Your task to perform on an android device: turn on improve location accuracy Image 0: 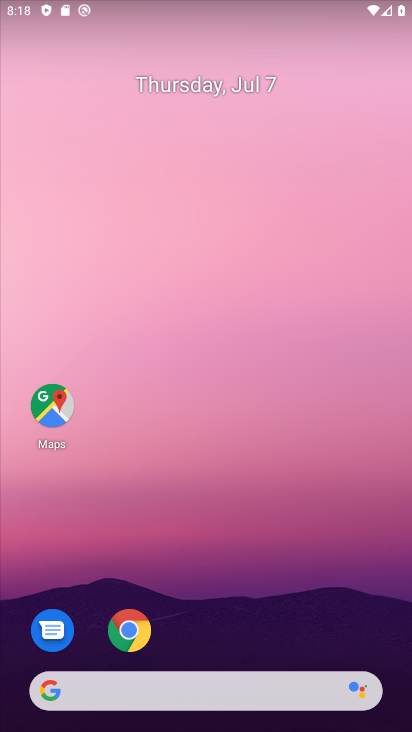
Step 0: drag from (230, 633) to (197, 200)
Your task to perform on an android device: turn on improve location accuracy Image 1: 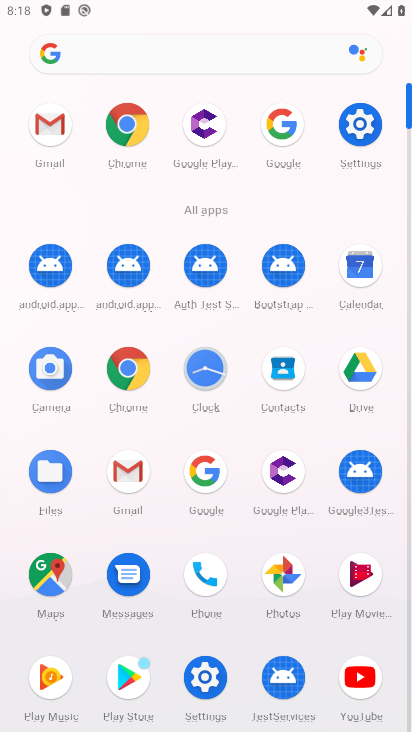
Step 1: click (348, 130)
Your task to perform on an android device: turn on improve location accuracy Image 2: 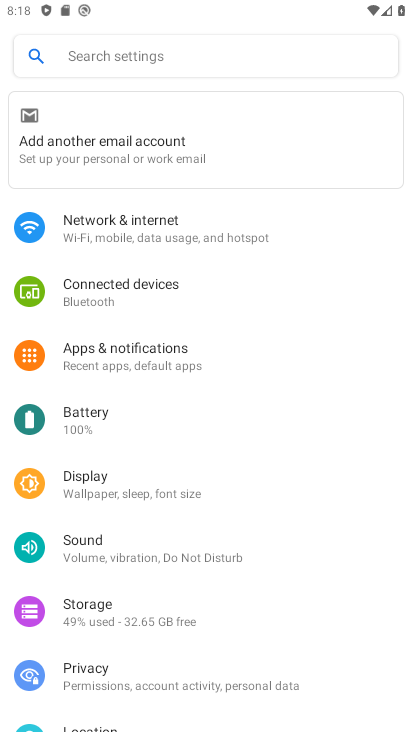
Step 2: drag from (171, 651) to (216, 367)
Your task to perform on an android device: turn on improve location accuracy Image 3: 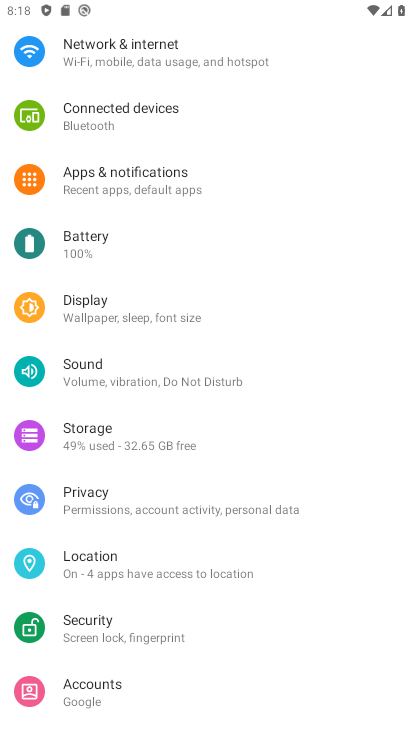
Step 3: click (136, 574)
Your task to perform on an android device: turn on improve location accuracy Image 4: 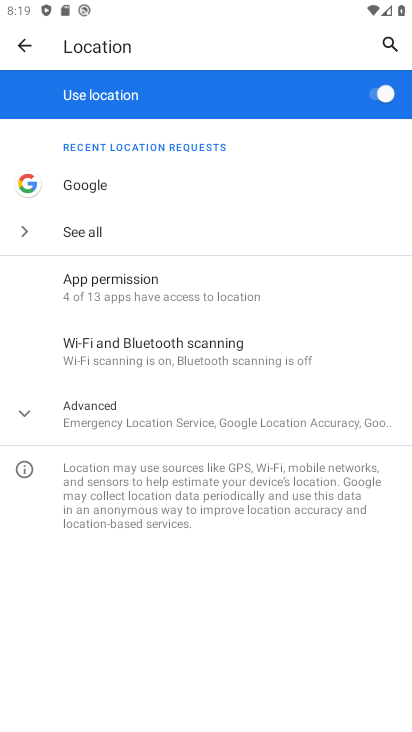
Step 4: click (172, 417)
Your task to perform on an android device: turn on improve location accuracy Image 5: 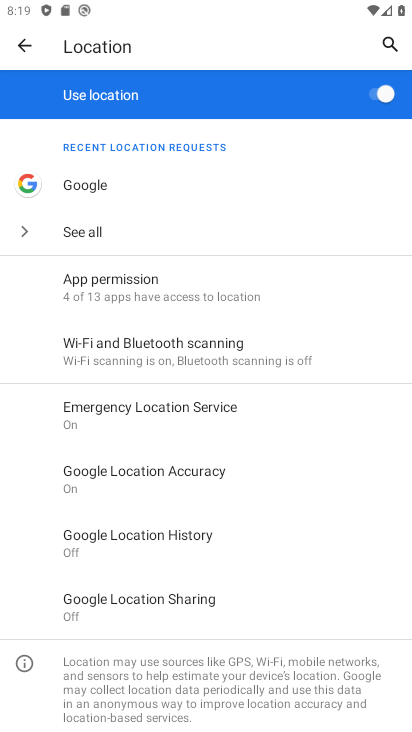
Step 5: click (217, 483)
Your task to perform on an android device: turn on improve location accuracy Image 6: 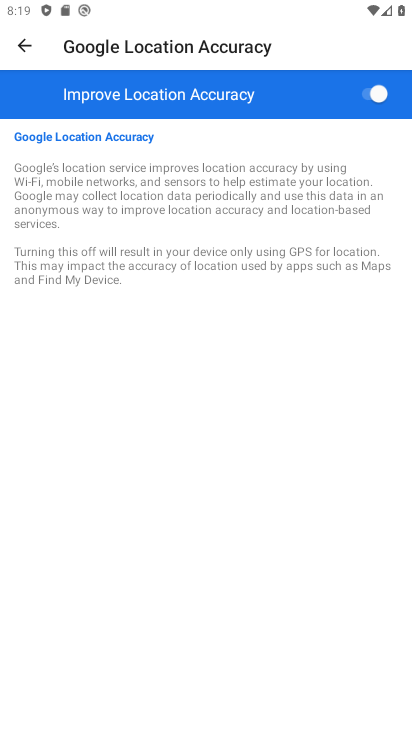
Step 6: task complete